Your task to perform on an android device: change the clock display to analog Image 0: 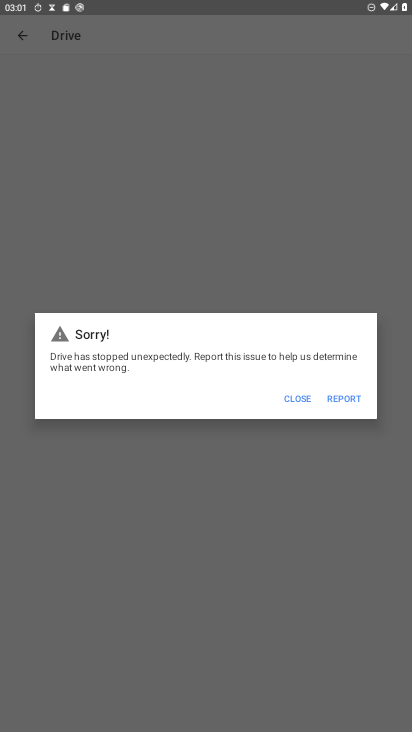
Step 0: press home button
Your task to perform on an android device: change the clock display to analog Image 1: 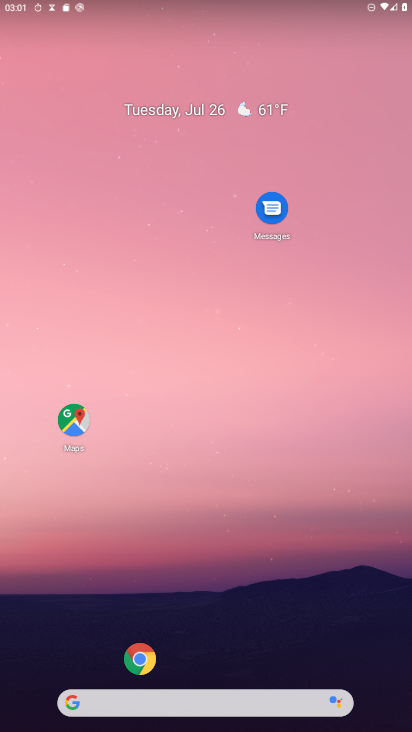
Step 1: drag from (44, 661) to (347, 258)
Your task to perform on an android device: change the clock display to analog Image 2: 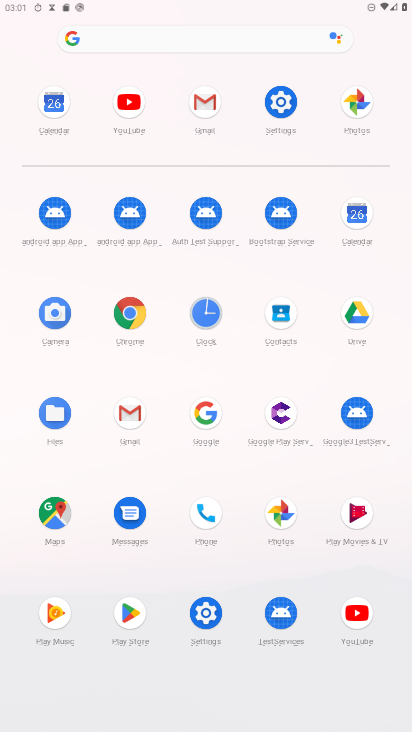
Step 2: click (212, 326)
Your task to perform on an android device: change the clock display to analog Image 3: 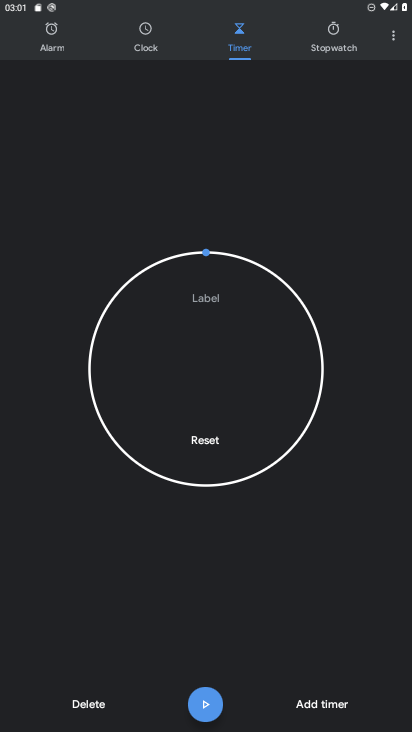
Step 3: click (392, 40)
Your task to perform on an android device: change the clock display to analog Image 4: 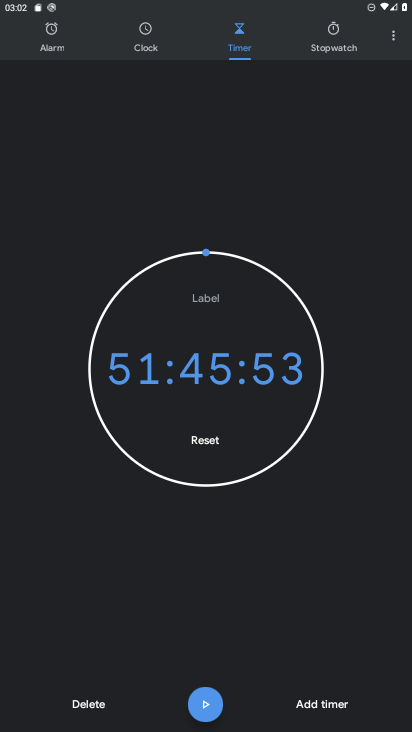
Step 4: click (393, 36)
Your task to perform on an android device: change the clock display to analog Image 5: 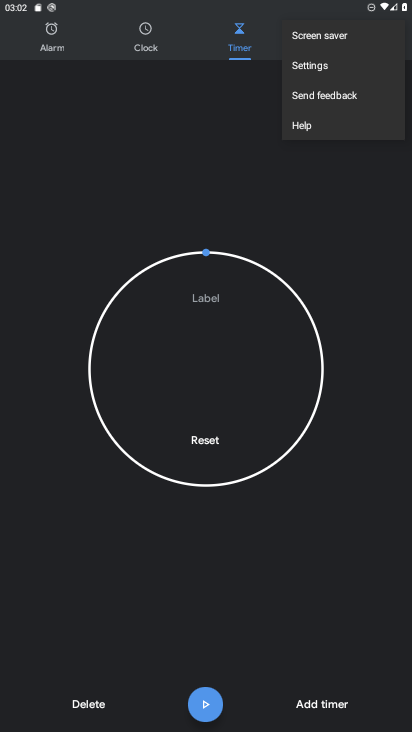
Step 5: click (313, 63)
Your task to perform on an android device: change the clock display to analog Image 6: 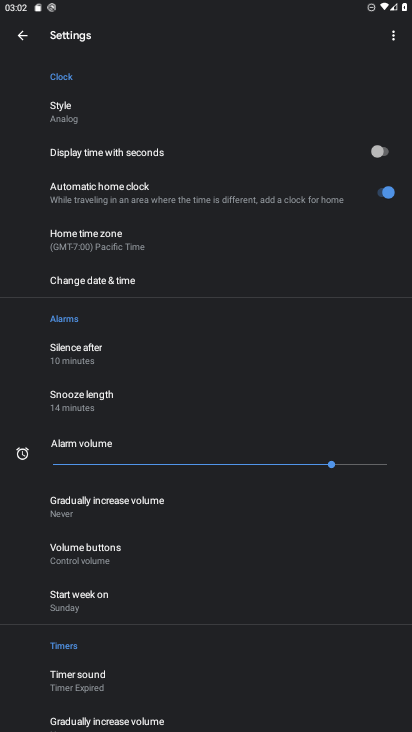
Step 6: click (69, 124)
Your task to perform on an android device: change the clock display to analog Image 7: 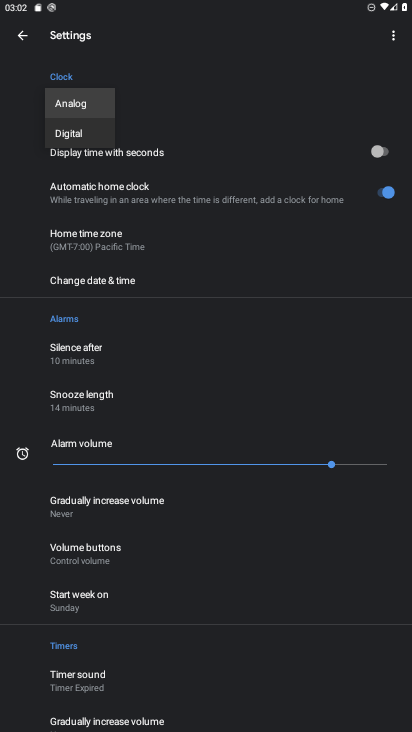
Step 7: click (81, 110)
Your task to perform on an android device: change the clock display to analog Image 8: 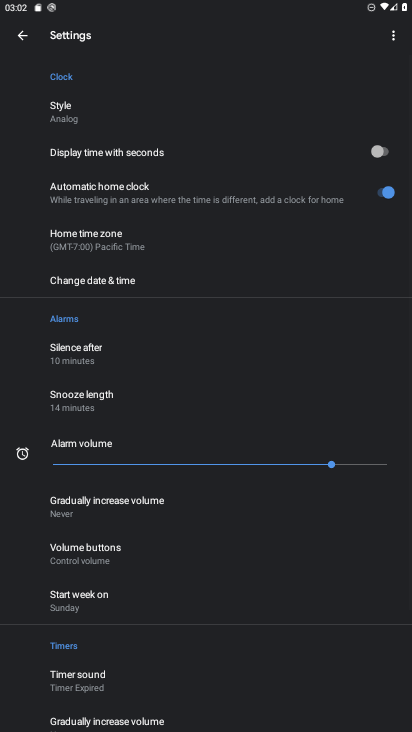
Step 8: task complete